Your task to perform on an android device: Open calendar and show me the third week of next month Image 0: 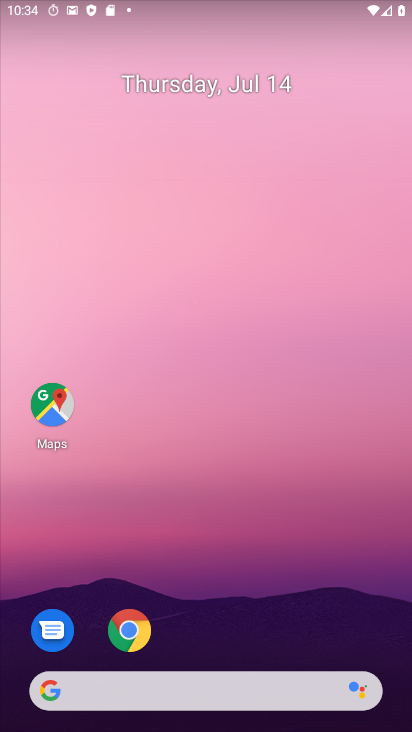
Step 0: drag from (299, 613) to (240, 3)
Your task to perform on an android device: Open calendar and show me the third week of next month Image 1: 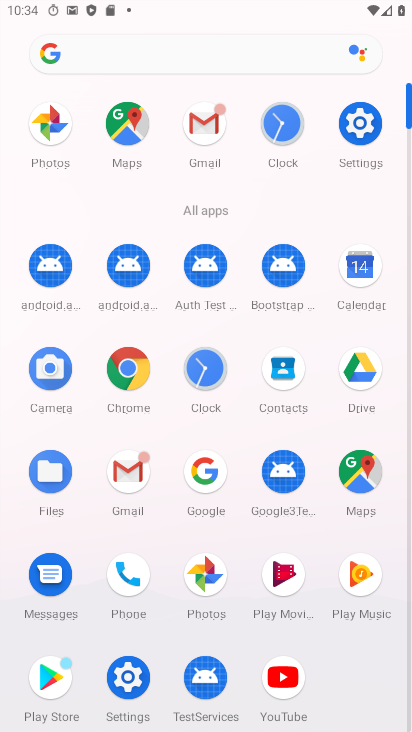
Step 1: click (362, 258)
Your task to perform on an android device: Open calendar and show me the third week of next month Image 2: 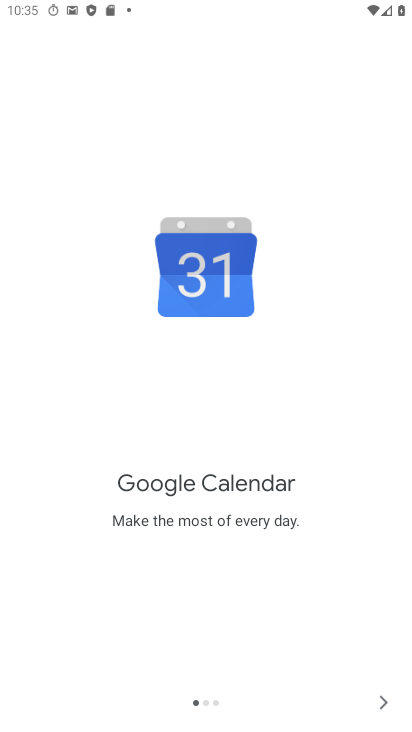
Step 2: click (390, 702)
Your task to perform on an android device: Open calendar and show me the third week of next month Image 3: 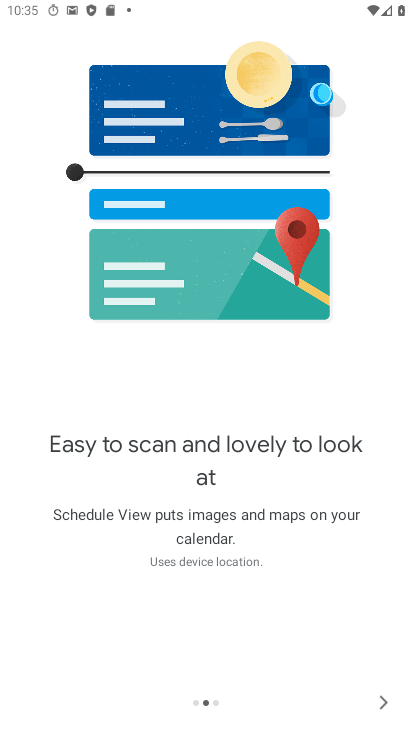
Step 3: click (390, 702)
Your task to perform on an android device: Open calendar and show me the third week of next month Image 4: 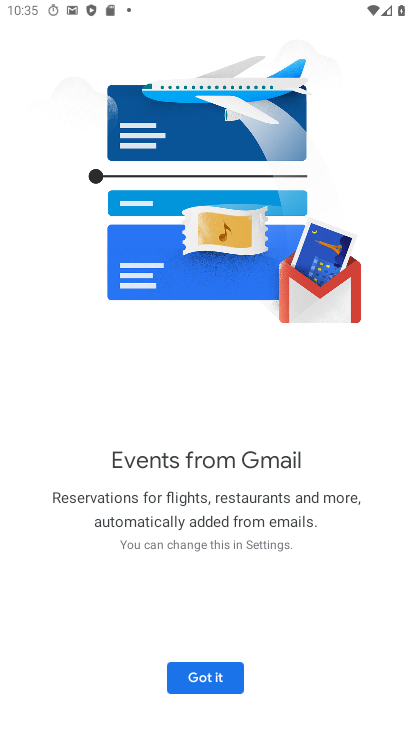
Step 4: click (230, 685)
Your task to perform on an android device: Open calendar and show me the third week of next month Image 5: 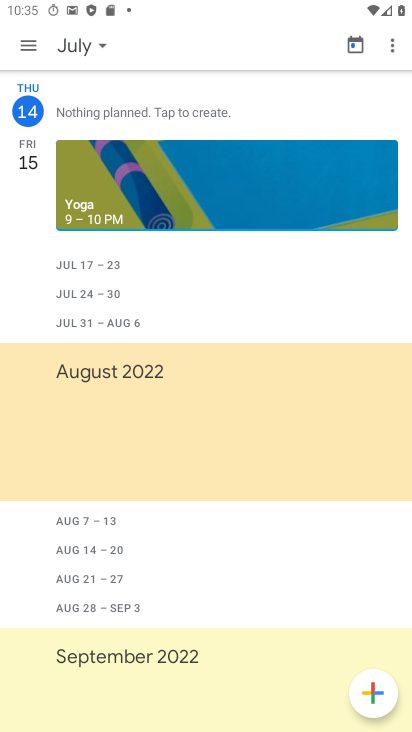
Step 5: click (79, 56)
Your task to perform on an android device: Open calendar and show me the third week of next month Image 6: 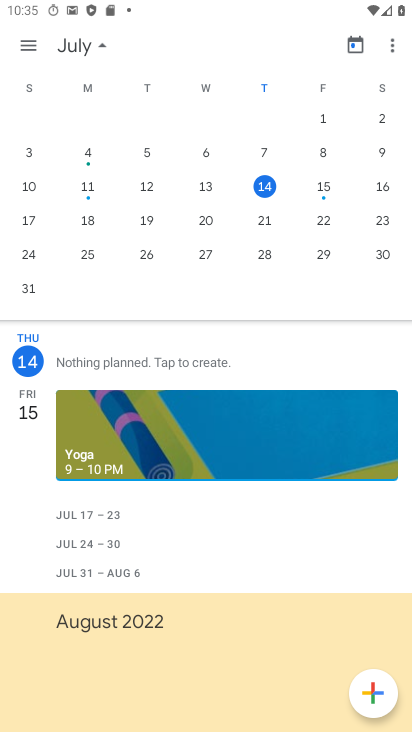
Step 6: drag from (400, 273) to (101, 268)
Your task to perform on an android device: Open calendar and show me the third week of next month Image 7: 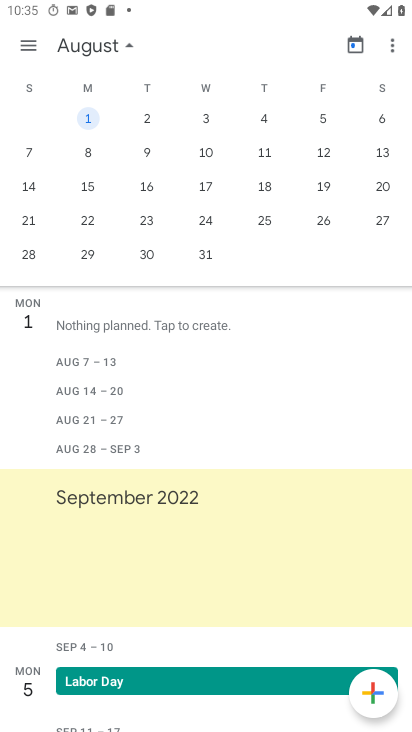
Step 7: click (25, 198)
Your task to perform on an android device: Open calendar and show me the third week of next month Image 8: 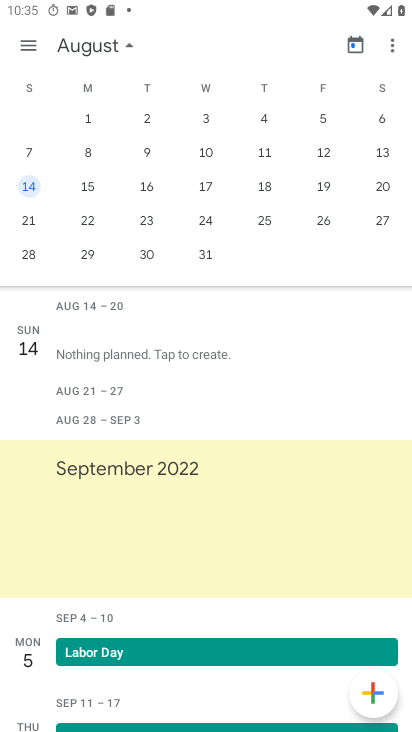
Step 8: task complete